Your task to perform on an android device: find snoozed emails in the gmail app Image 0: 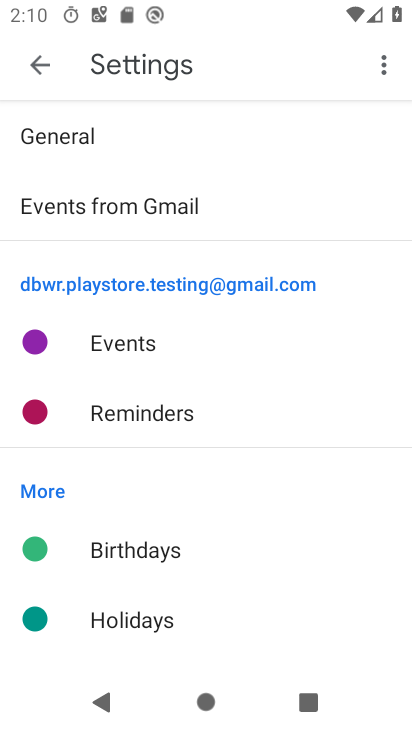
Step 0: drag from (210, 588) to (402, 253)
Your task to perform on an android device: find snoozed emails in the gmail app Image 1: 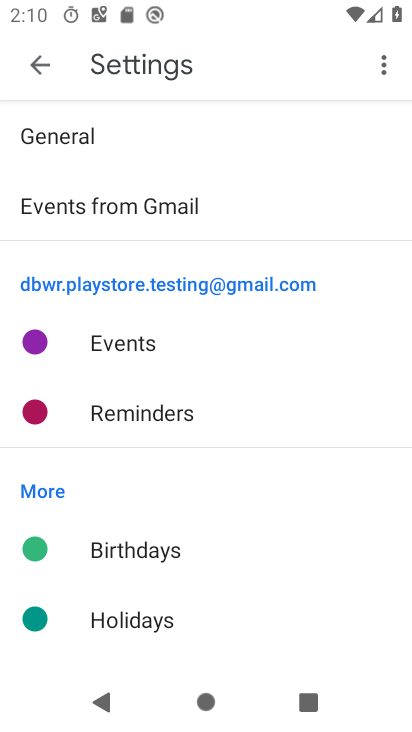
Step 1: drag from (241, 600) to (284, 215)
Your task to perform on an android device: find snoozed emails in the gmail app Image 2: 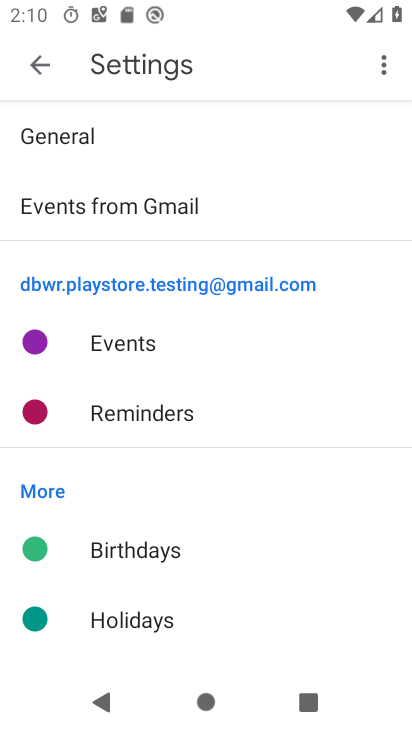
Step 2: drag from (276, 342) to (400, 341)
Your task to perform on an android device: find snoozed emails in the gmail app Image 3: 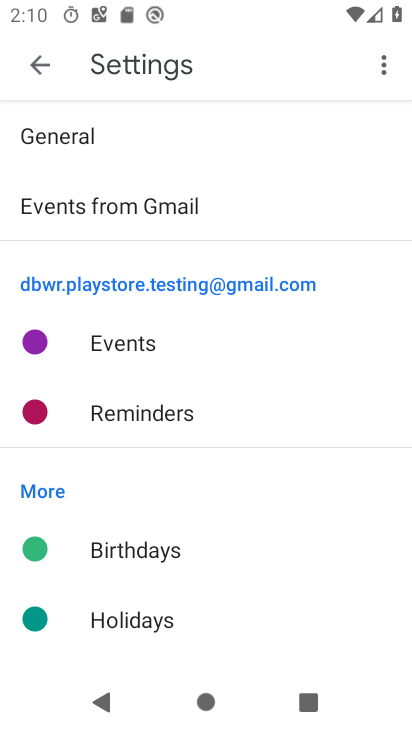
Step 3: click (21, 64)
Your task to perform on an android device: find snoozed emails in the gmail app Image 4: 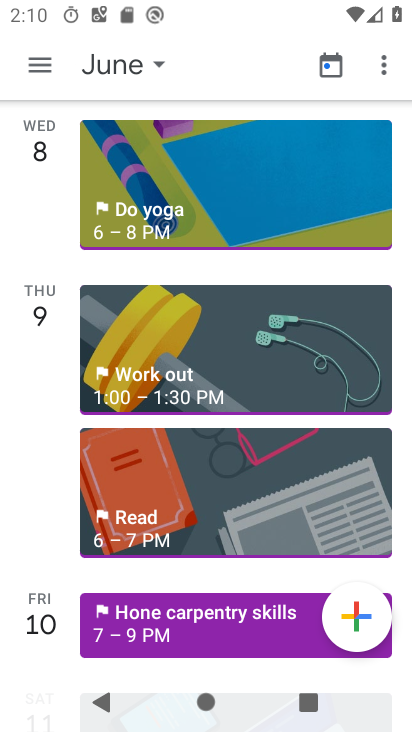
Step 4: click (123, 68)
Your task to perform on an android device: find snoozed emails in the gmail app Image 5: 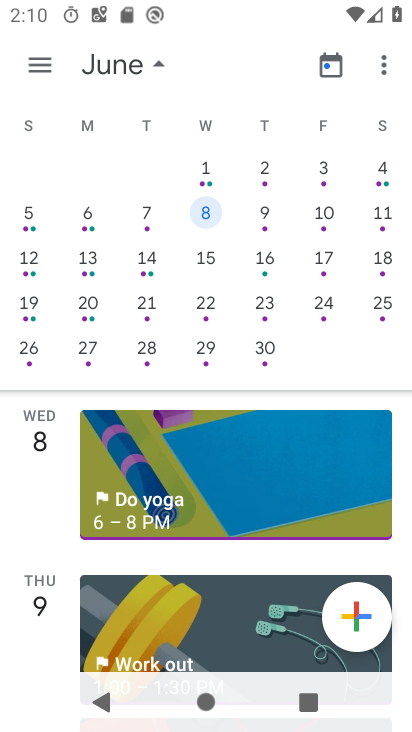
Step 5: click (128, 65)
Your task to perform on an android device: find snoozed emails in the gmail app Image 6: 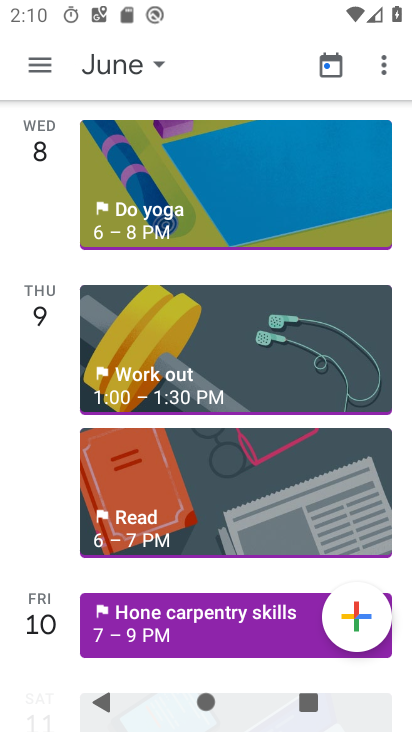
Step 6: press home button
Your task to perform on an android device: find snoozed emails in the gmail app Image 7: 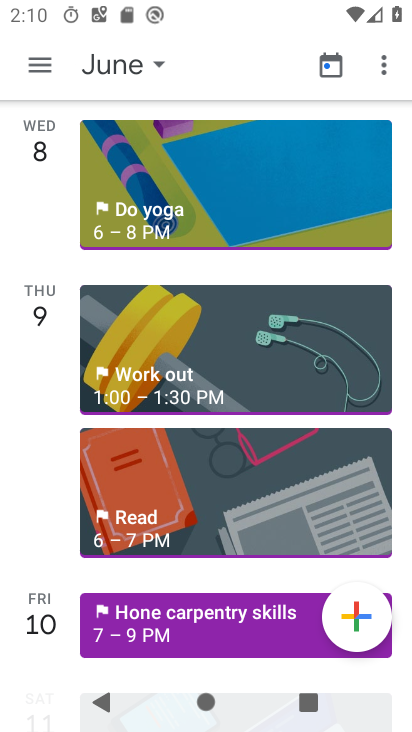
Step 7: press home button
Your task to perform on an android device: find snoozed emails in the gmail app Image 8: 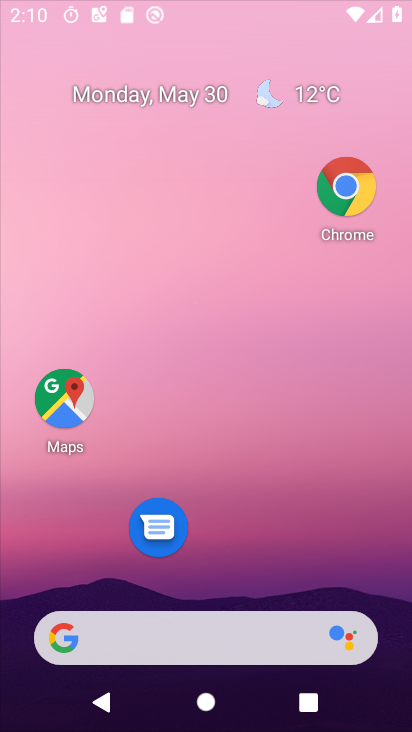
Step 8: drag from (216, 495) to (253, 25)
Your task to perform on an android device: find snoozed emails in the gmail app Image 9: 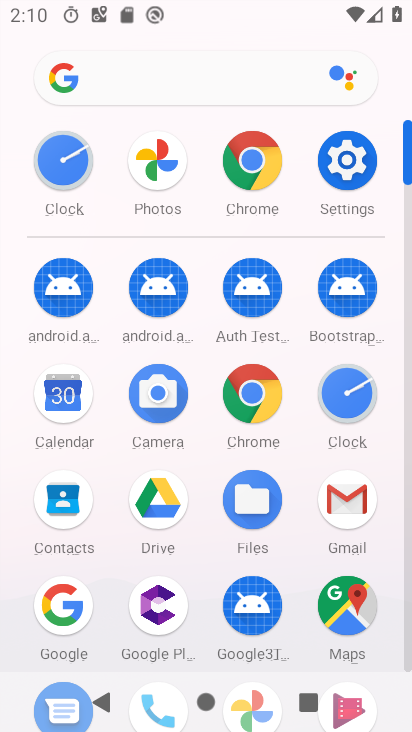
Step 9: click (342, 496)
Your task to perform on an android device: find snoozed emails in the gmail app Image 10: 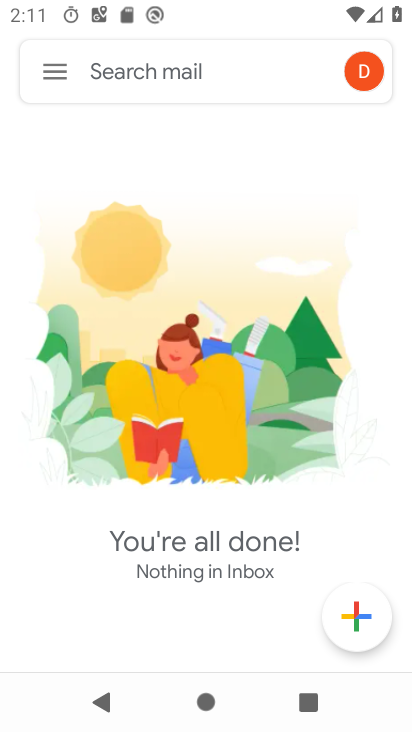
Step 10: click (58, 77)
Your task to perform on an android device: find snoozed emails in the gmail app Image 11: 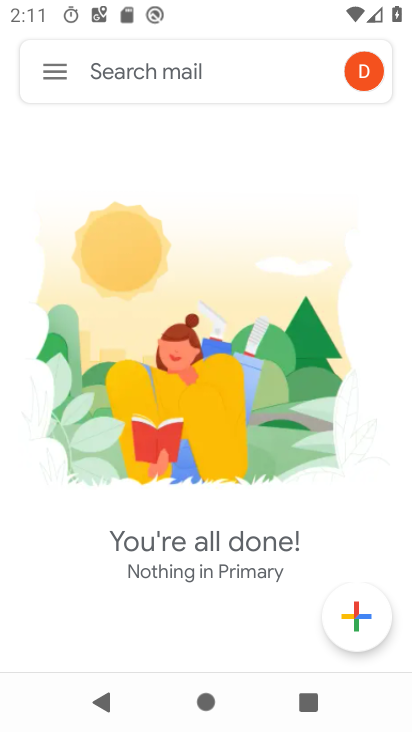
Step 11: click (62, 60)
Your task to perform on an android device: find snoozed emails in the gmail app Image 12: 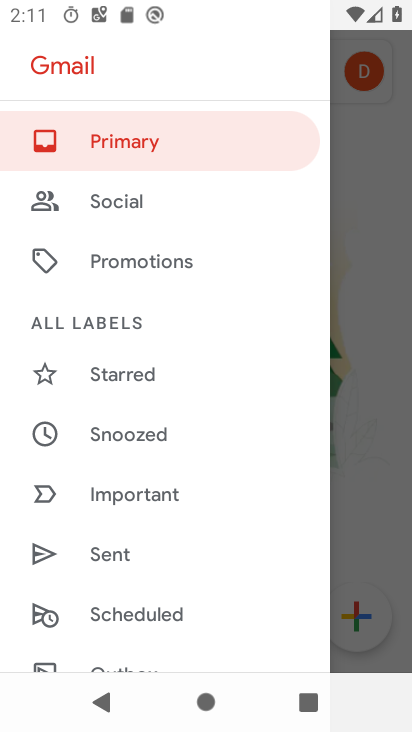
Step 12: click (156, 426)
Your task to perform on an android device: find snoozed emails in the gmail app Image 13: 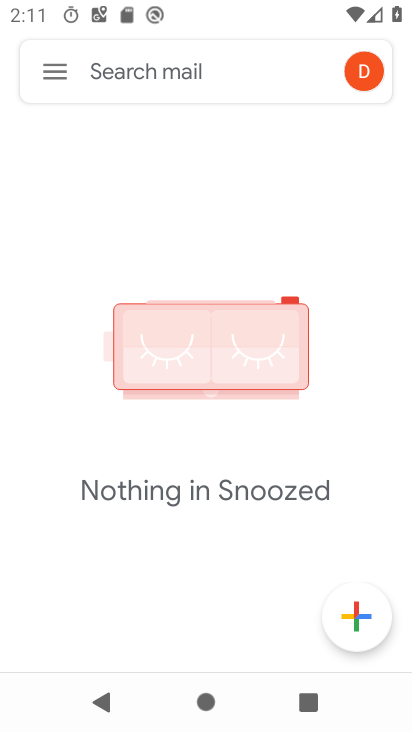
Step 13: click (260, 115)
Your task to perform on an android device: find snoozed emails in the gmail app Image 14: 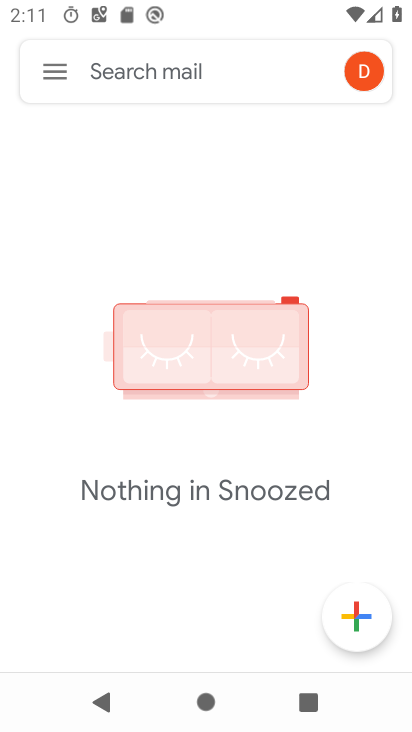
Step 14: task complete